Your task to perform on an android device: Open Google Chrome and open the bookmarks view Image 0: 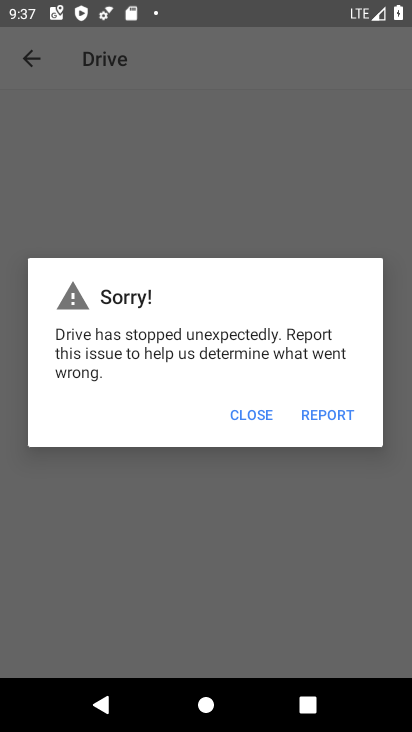
Step 0: press home button
Your task to perform on an android device: Open Google Chrome and open the bookmarks view Image 1: 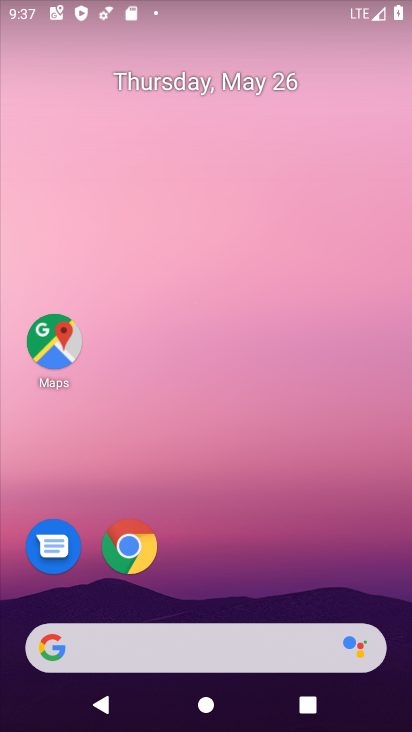
Step 1: drag from (341, 525) to (328, 134)
Your task to perform on an android device: Open Google Chrome and open the bookmarks view Image 2: 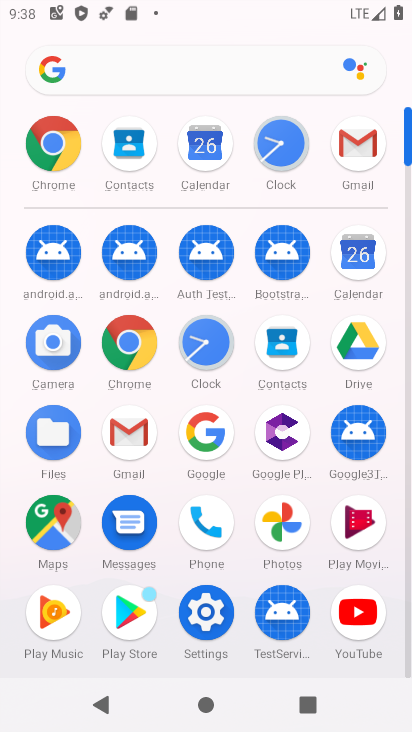
Step 2: click (132, 362)
Your task to perform on an android device: Open Google Chrome and open the bookmarks view Image 3: 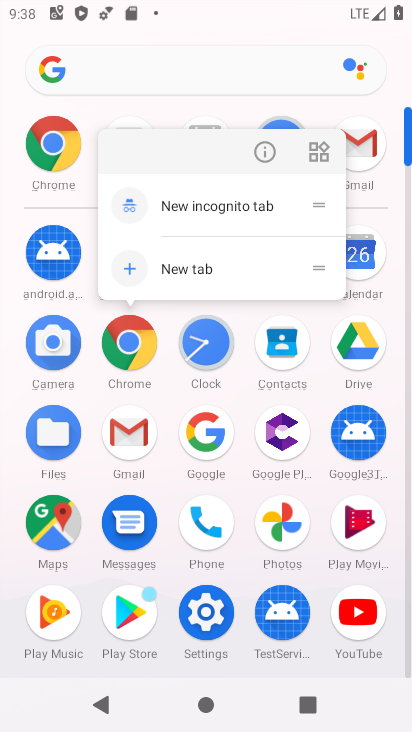
Step 3: click (131, 367)
Your task to perform on an android device: Open Google Chrome and open the bookmarks view Image 4: 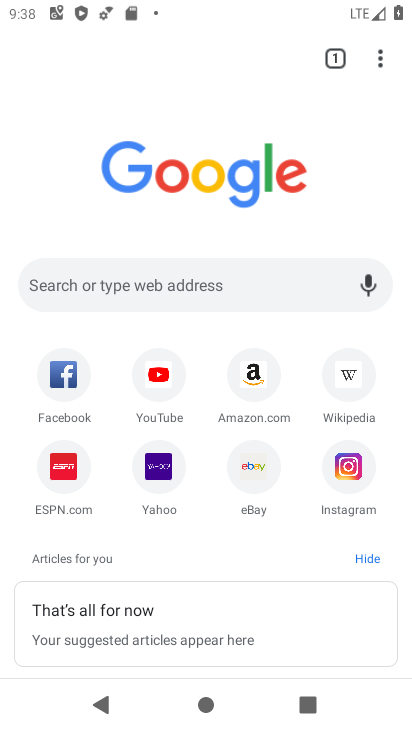
Step 4: task complete